Your task to perform on an android device: turn off javascript in the chrome app Image 0: 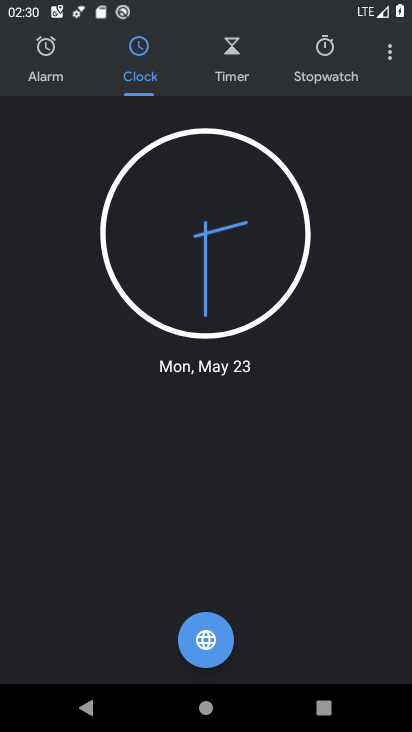
Step 0: click (321, 494)
Your task to perform on an android device: turn off javascript in the chrome app Image 1: 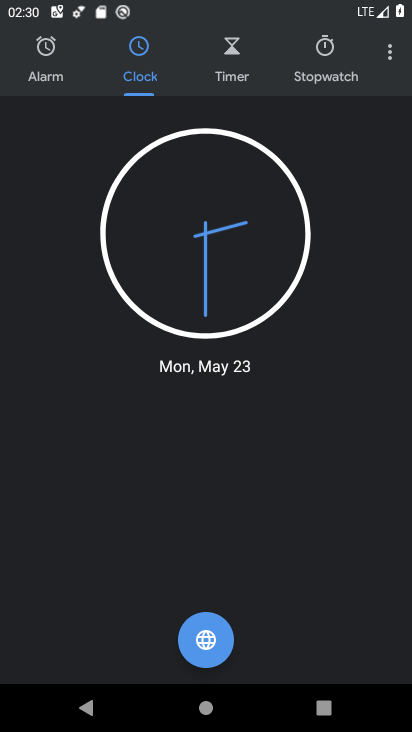
Step 1: press home button
Your task to perform on an android device: turn off javascript in the chrome app Image 2: 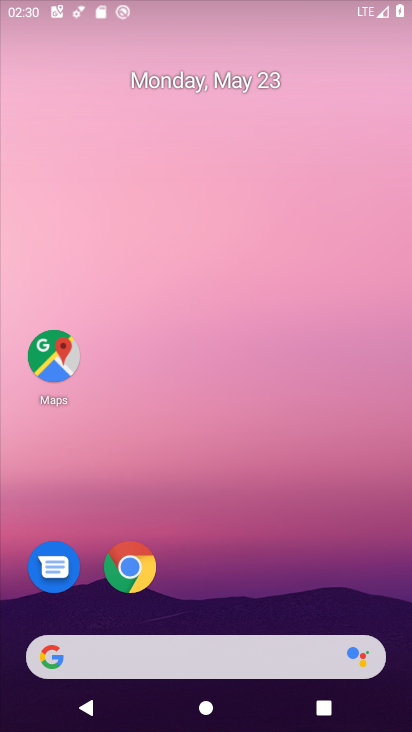
Step 2: drag from (255, 579) to (299, 130)
Your task to perform on an android device: turn off javascript in the chrome app Image 3: 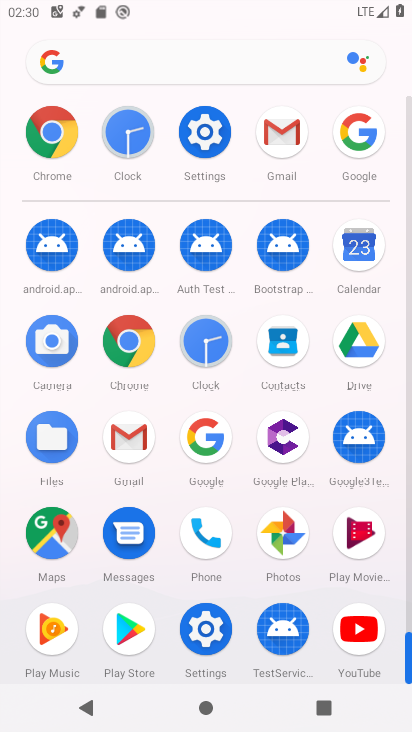
Step 3: click (138, 352)
Your task to perform on an android device: turn off javascript in the chrome app Image 4: 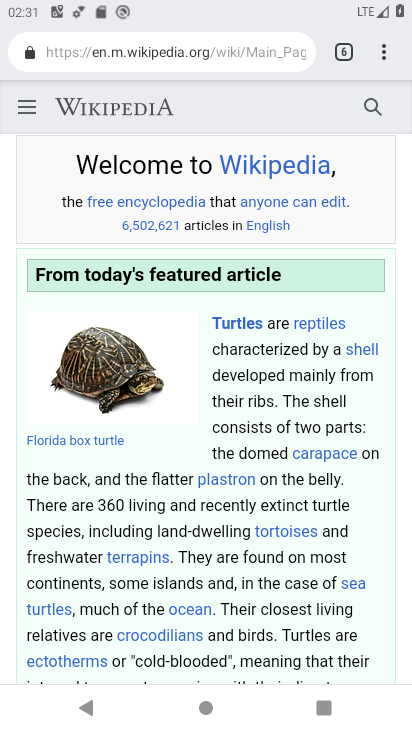
Step 4: click (376, 55)
Your task to perform on an android device: turn off javascript in the chrome app Image 5: 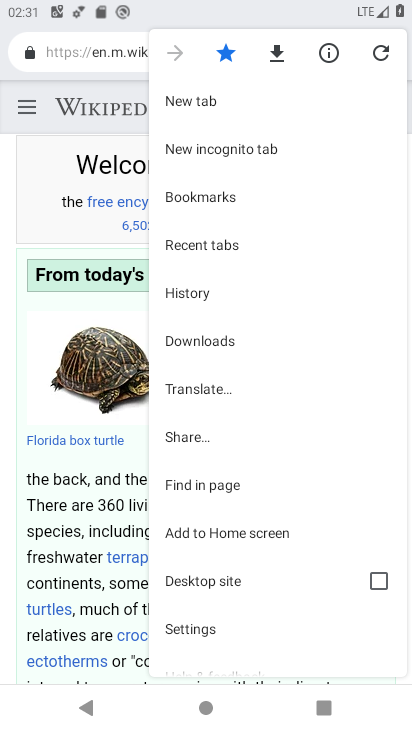
Step 5: click (216, 638)
Your task to perform on an android device: turn off javascript in the chrome app Image 6: 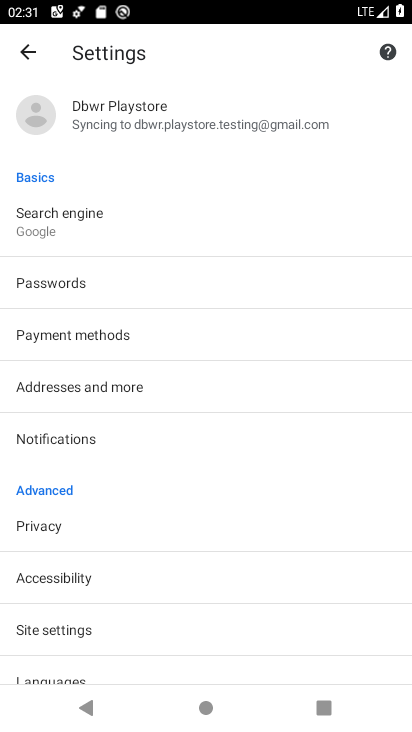
Step 6: click (131, 628)
Your task to perform on an android device: turn off javascript in the chrome app Image 7: 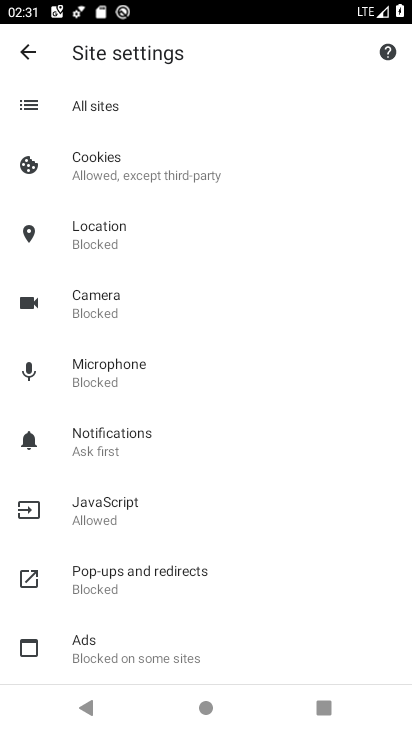
Step 7: click (164, 509)
Your task to perform on an android device: turn off javascript in the chrome app Image 8: 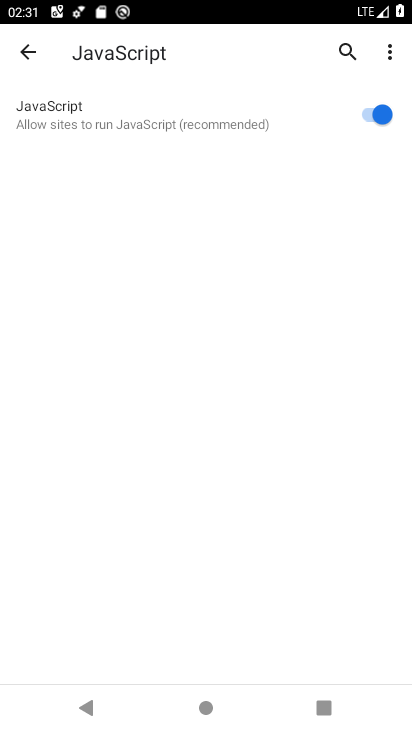
Step 8: click (372, 114)
Your task to perform on an android device: turn off javascript in the chrome app Image 9: 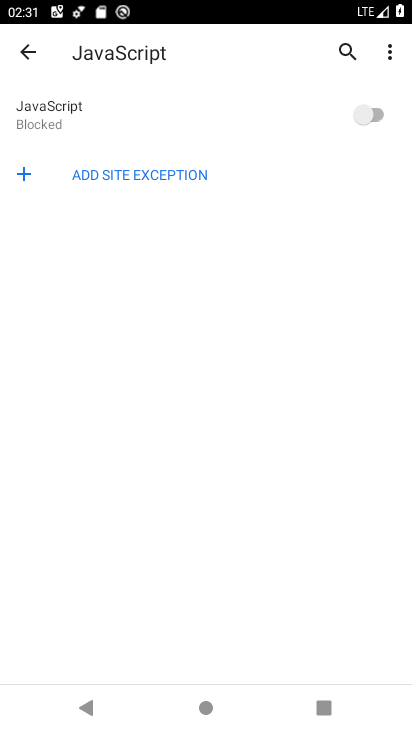
Step 9: task complete